Your task to perform on an android device: open a bookmark in the chrome app Image 0: 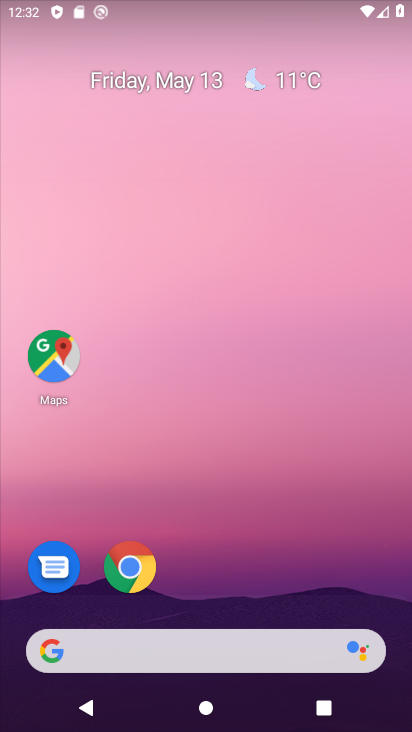
Step 0: click (140, 579)
Your task to perform on an android device: open a bookmark in the chrome app Image 1: 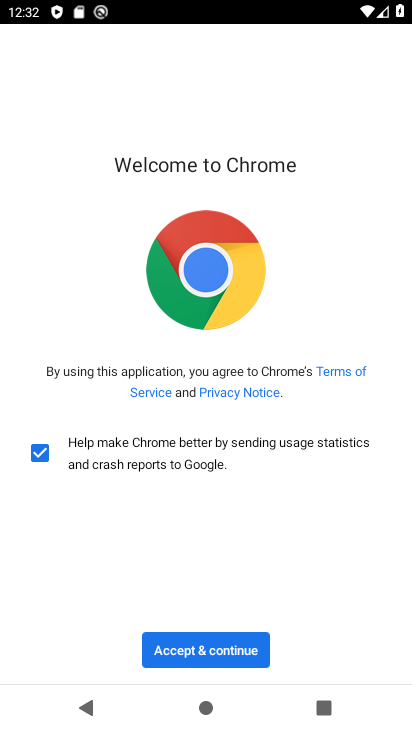
Step 1: click (209, 653)
Your task to perform on an android device: open a bookmark in the chrome app Image 2: 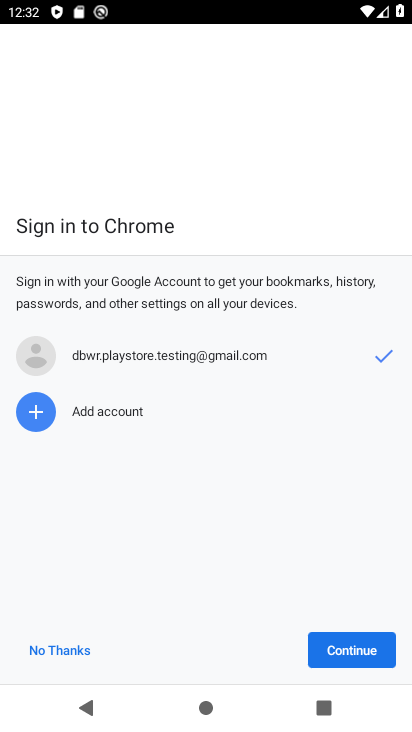
Step 2: click (394, 653)
Your task to perform on an android device: open a bookmark in the chrome app Image 3: 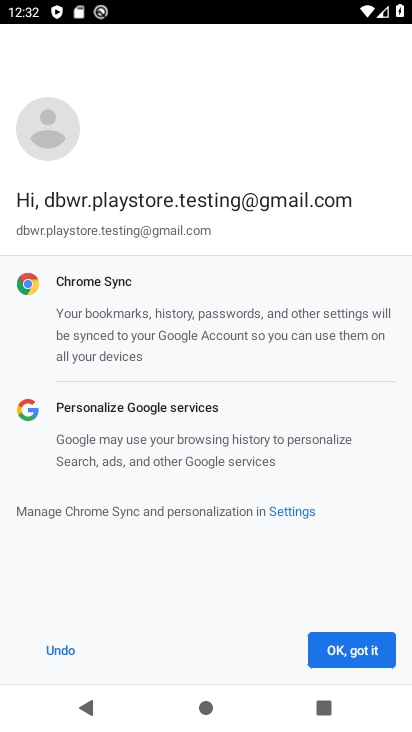
Step 3: click (325, 683)
Your task to perform on an android device: open a bookmark in the chrome app Image 4: 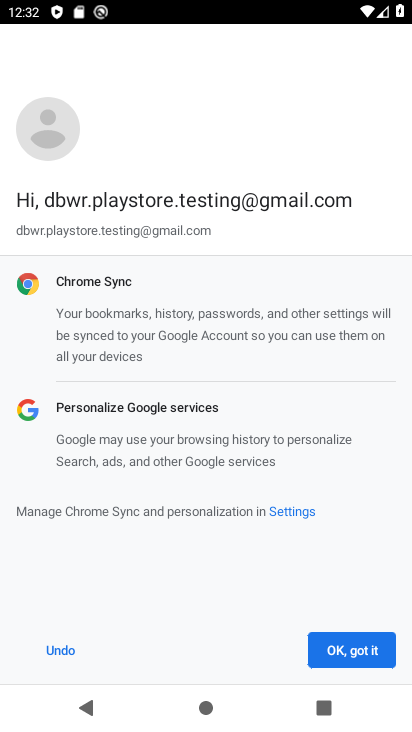
Step 4: click (334, 661)
Your task to perform on an android device: open a bookmark in the chrome app Image 5: 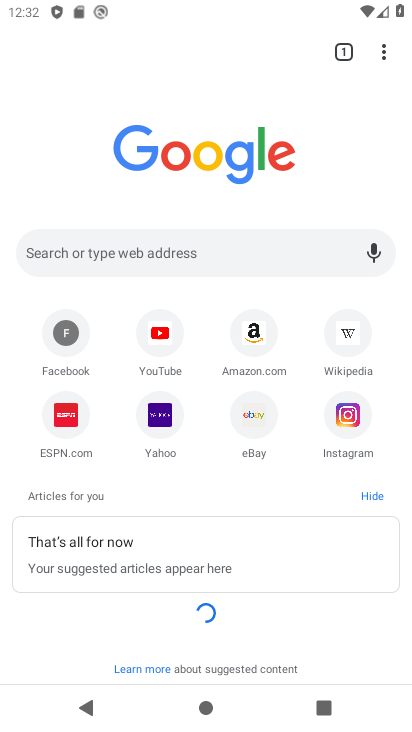
Step 5: click (381, 47)
Your task to perform on an android device: open a bookmark in the chrome app Image 6: 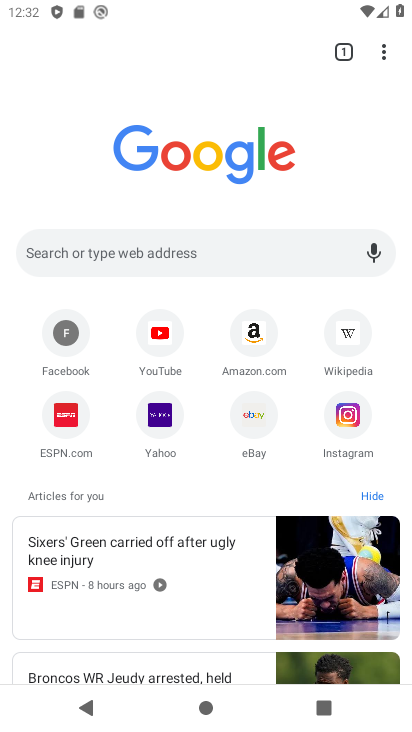
Step 6: click (381, 50)
Your task to perform on an android device: open a bookmark in the chrome app Image 7: 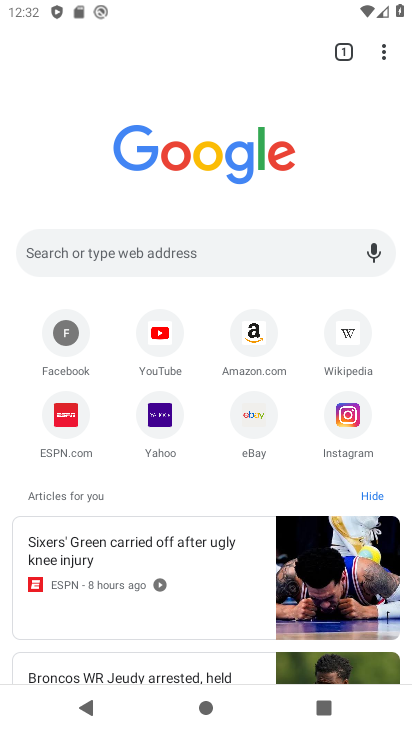
Step 7: click (384, 47)
Your task to perform on an android device: open a bookmark in the chrome app Image 8: 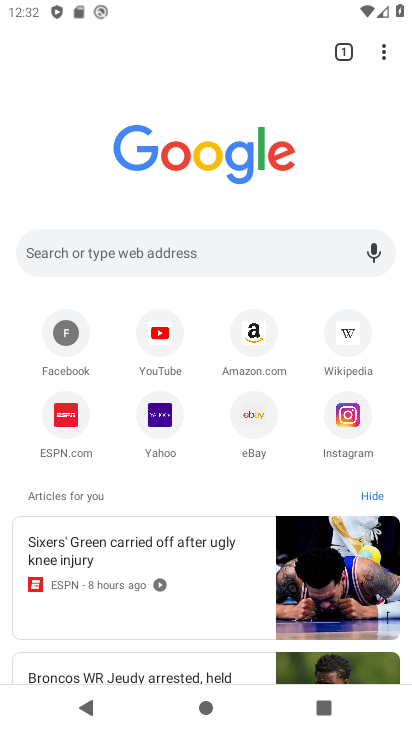
Step 8: click (386, 51)
Your task to perform on an android device: open a bookmark in the chrome app Image 9: 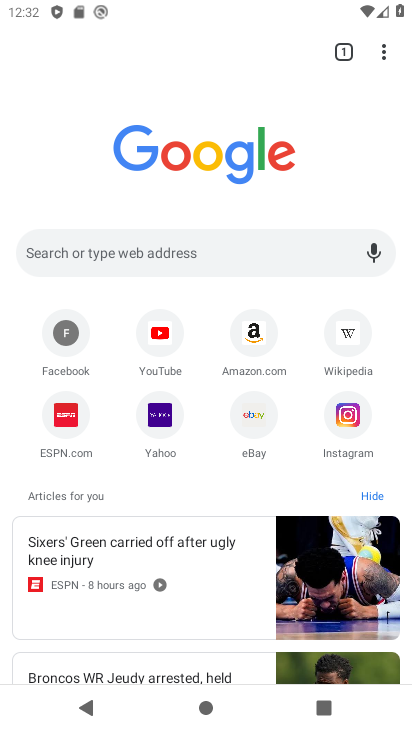
Step 9: click (383, 56)
Your task to perform on an android device: open a bookmark in the chrome app Image 10: 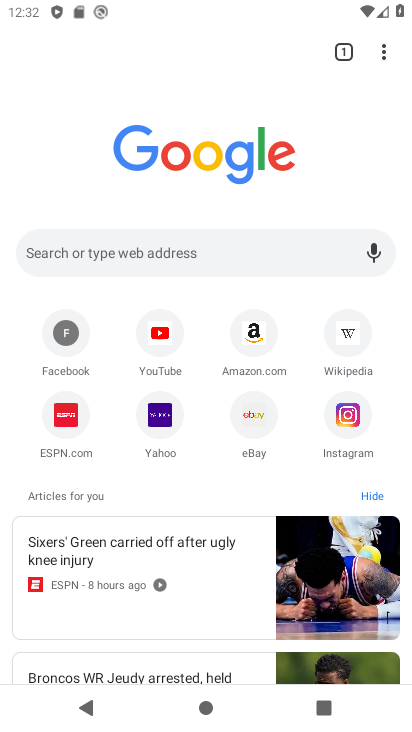
Step 10: click (383, 53)
Your task to perform on an android device: open a bookmark in the chrome app Image 11: 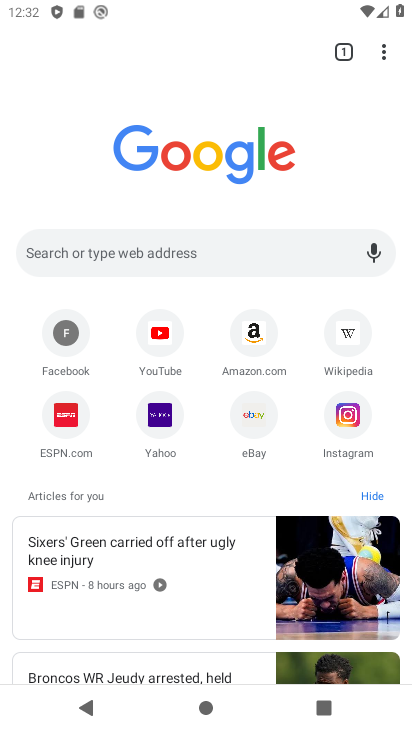
Step 11: click (386, 49)
Your task to perform on an android device: open a bookmark in the chrome app Image 12: 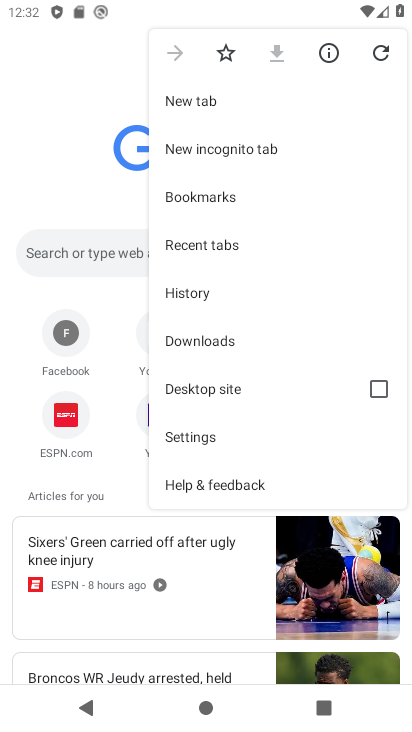
Step 12: click (188, 195)
Your task to perform on an android device: open a bookmark in the chrome app Image 13: 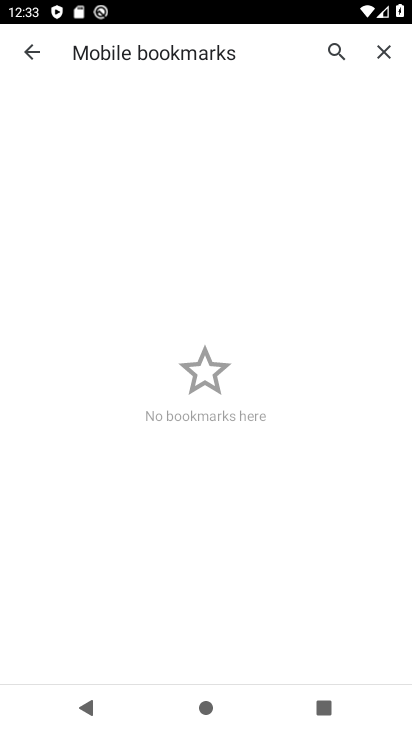
Step 13: task complete